Your task to perform on an android device: Open Google Maps Image 0: 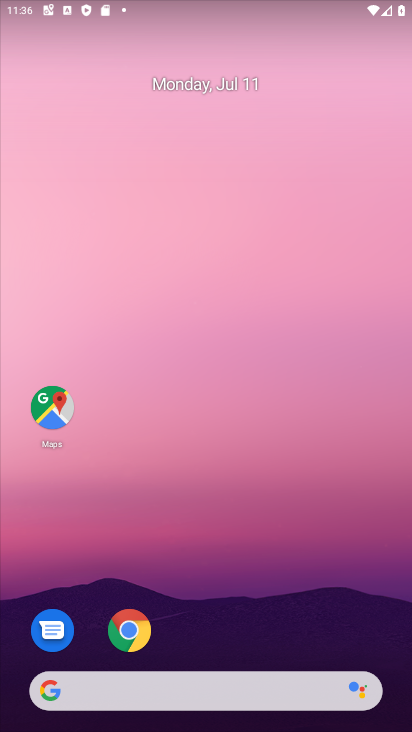
Step 0: click (51, 407)
Your task to perform on an android device: Open Google Maps Image 1: 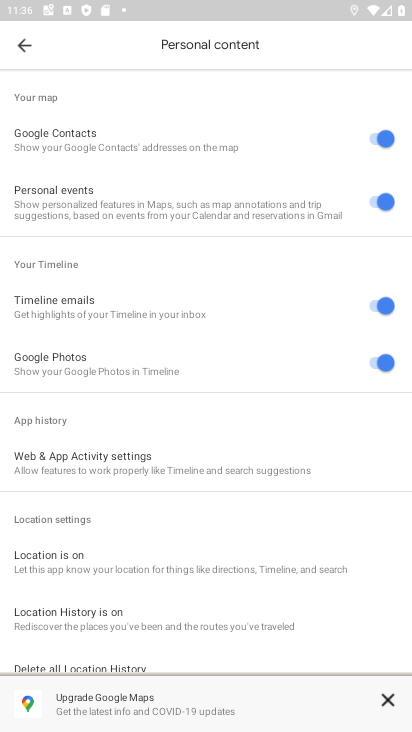
Step 1: task complete